Your task to perform on an android device: change timer sound Image 0: 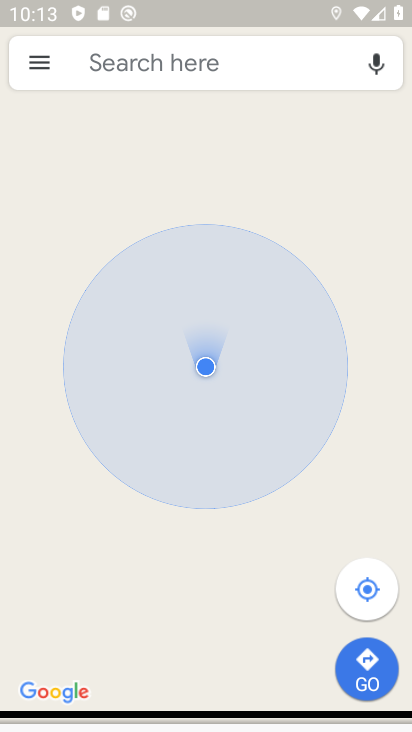
Step 0: press back button
Your task to perform on an android device: change timer sound Image 1: 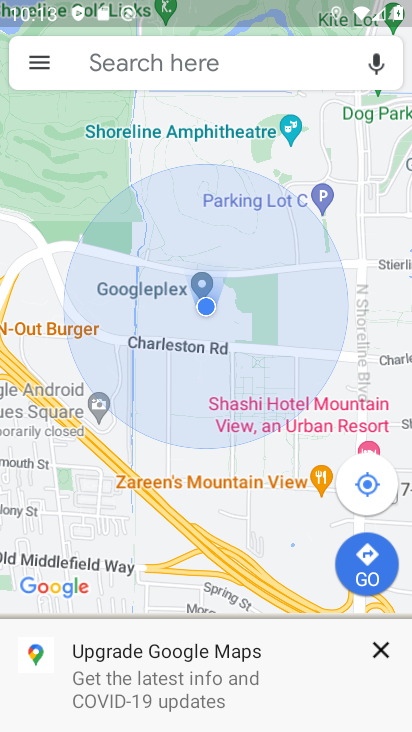
Step 1: press back button
Your task to perform on an android device: change timer sound Image 2: 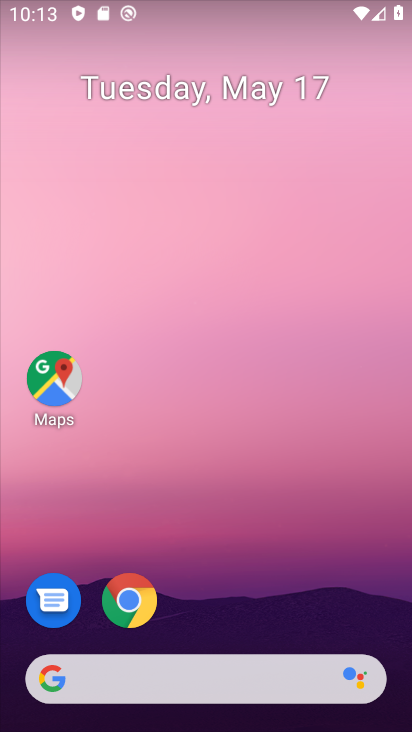
Step 2: drag from (208, 545) to (287, 63)
Your task to perform on an android device: change timer sound Image 3: 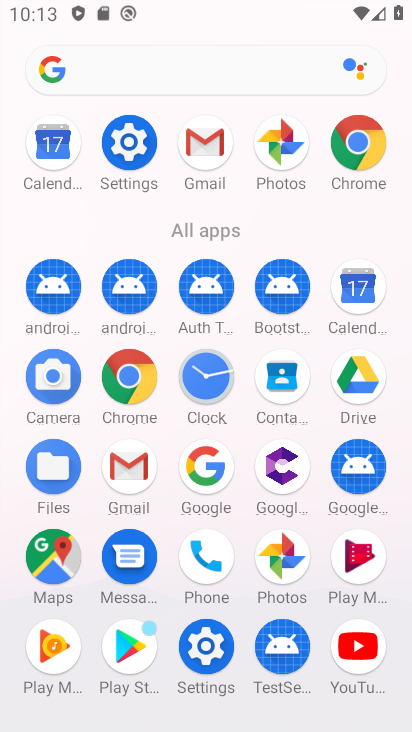
Step 3: click (118, 132)
Your task to perform on an android device: change timer sound Image 4: 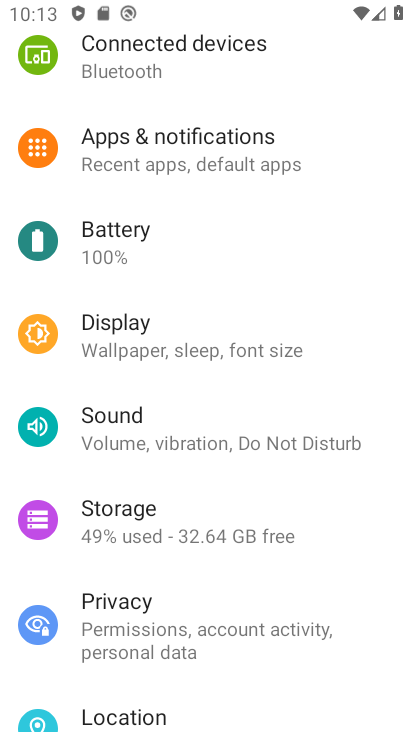
Step 4: click (124, 426)
Your task to perform on an android device: change timer sound Image 5: 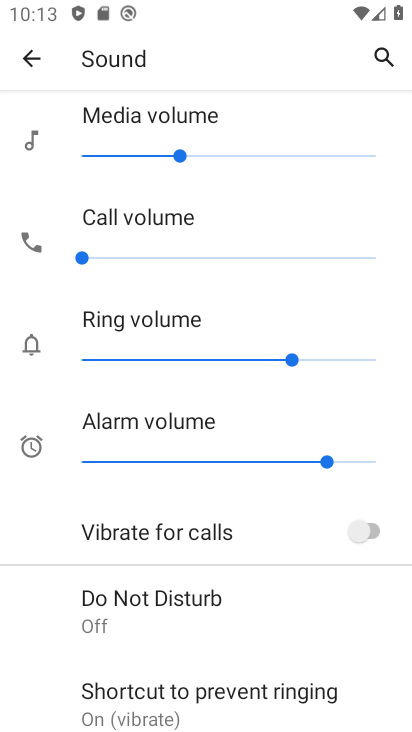
Step 5: press back button
Your task to perform on an android device: change timer sound Image 6: 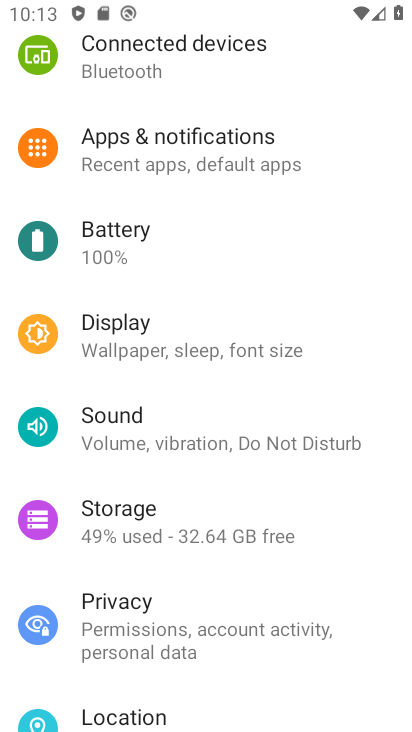
Step 6: press back button
Your task to perform on an android device: change timer sound Image 7: 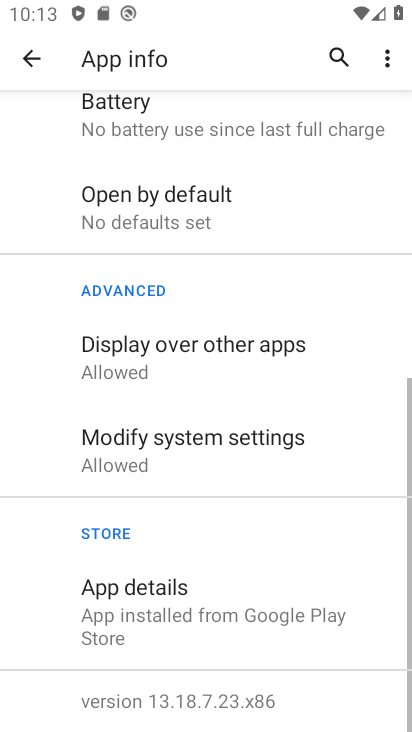
Step 7: press back button
Your task to perform on an android device: change timer sound Image 8: 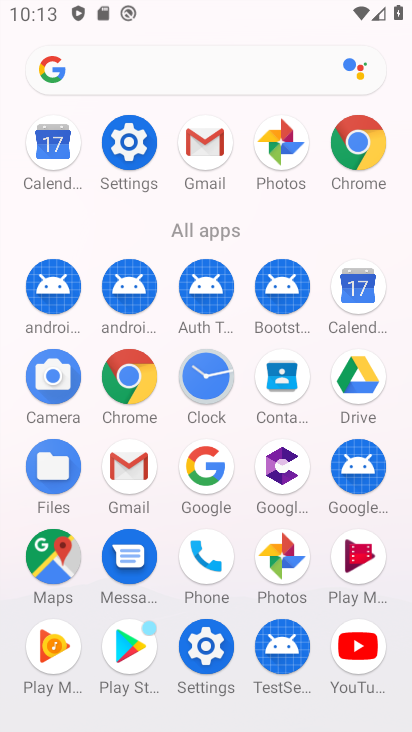
Step 8: click (206, 401)
Your task to perform on an android device: change timer sound Image 9: 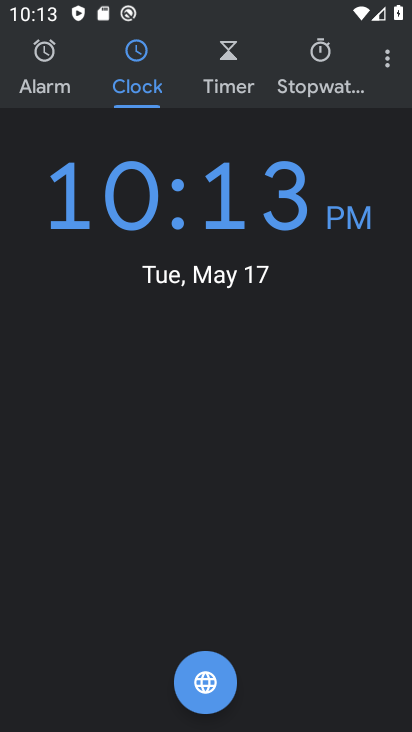
Step 9: click (382, 59)
Your task to perform on an android device: change timer sound Image 10: 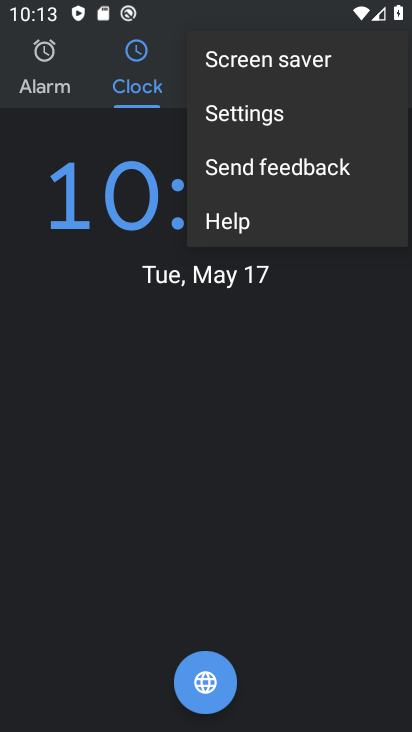
Step 10: click (275, 118)
Your task to perform on an android device: change timer sound Image 11: 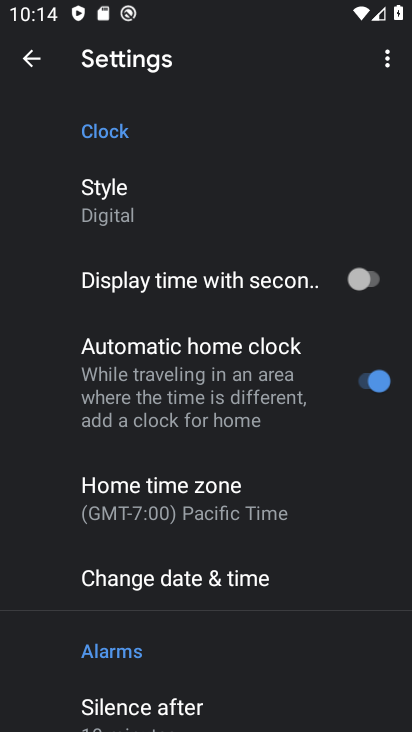
Step 11: drag from (161, 695) to (211, 147)
Your task to perform on an android device: change timer sound Image 12: 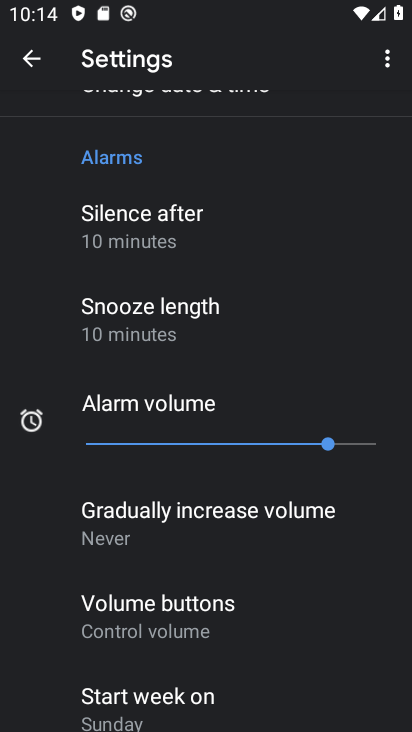
Step 12: drag from (245, 168) to (190, 603)
Your task to perform on an android device: change timer sound Image 13: 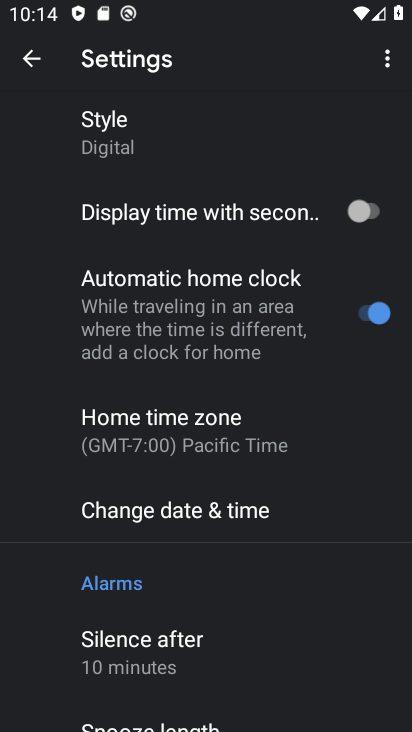
Step 13: drag from (208, 653) to (225, 314)
Your task to perform on an android device: change timer sound Image 14: 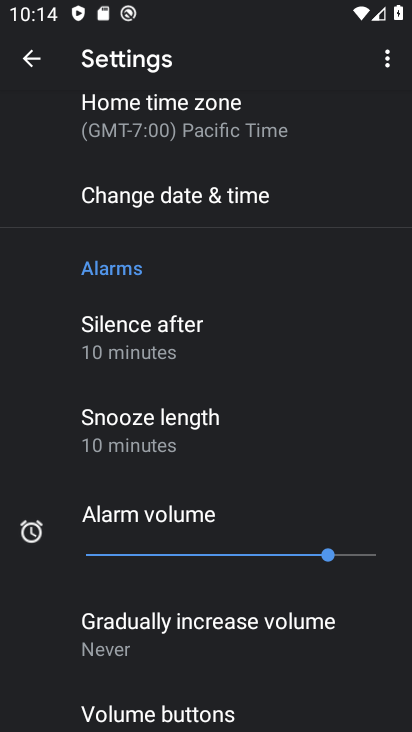
Step 14: drag from (187, 644) to (248, 247)
Your task to perform on an android device: change timer sound Image 15: 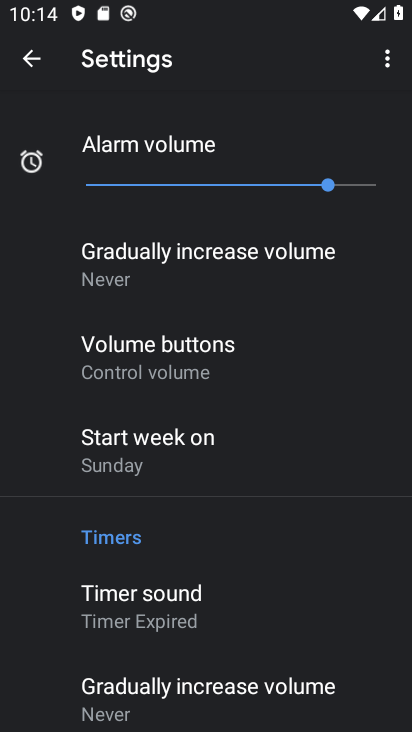
Step 15: click (148, 601)
Your task to perform on an android device: change timer sound Image 16: 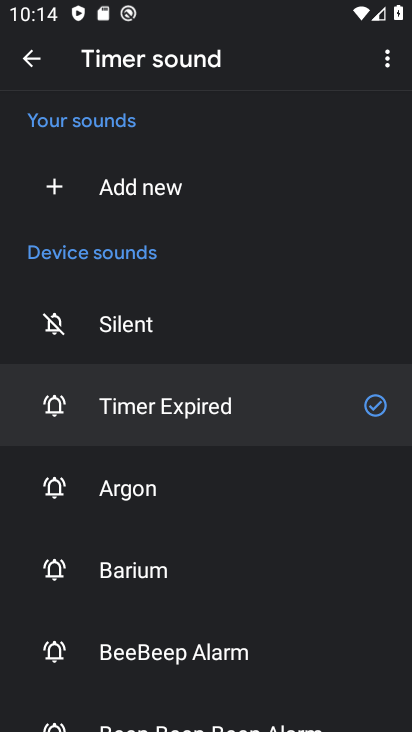
Step 16: click (141, 468)
Your task to perform on an android device: change timer sound Image 17: 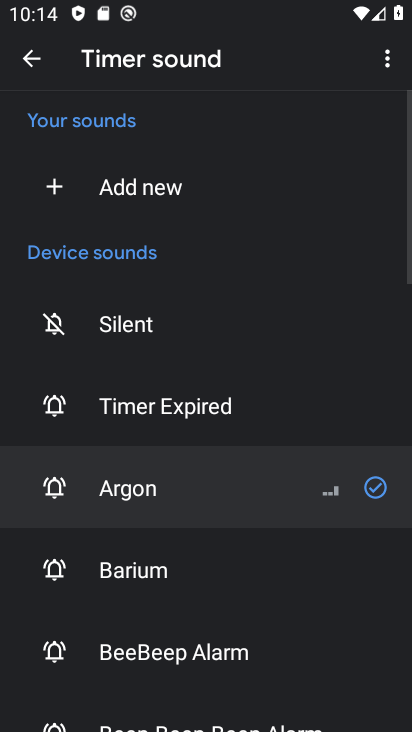
Step 17: task complete